Your task to perform on an android device: Add "alienware aurora" to the cart on newegg Image 0: 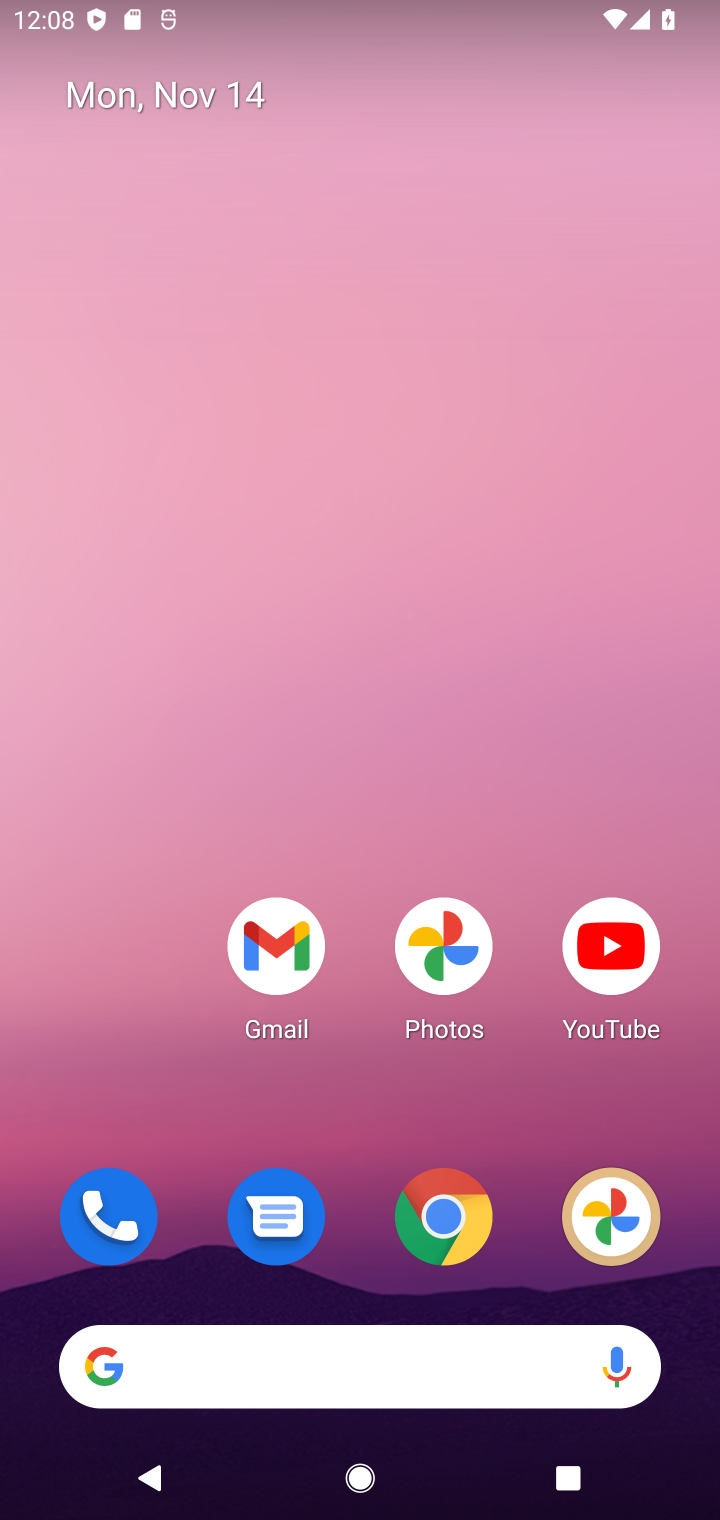
Step 0: click (442, 1203)
Your task to perform on an android device: Add "alienware aurora" to the cart on newegg Image 1: 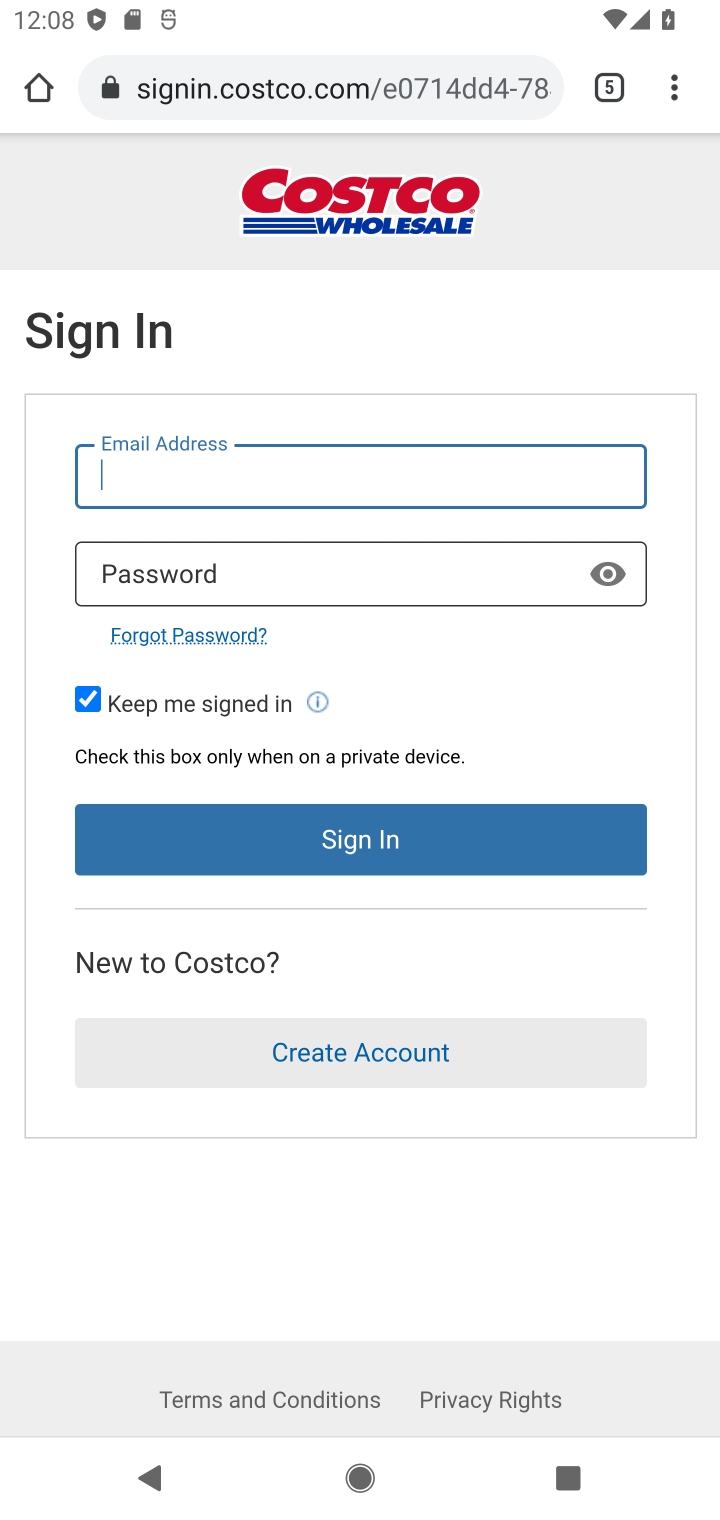
Step 1: click (606, 78)
Your task to perform on an android device: Add "alienware aurora" to the cart on newegg Image 2: 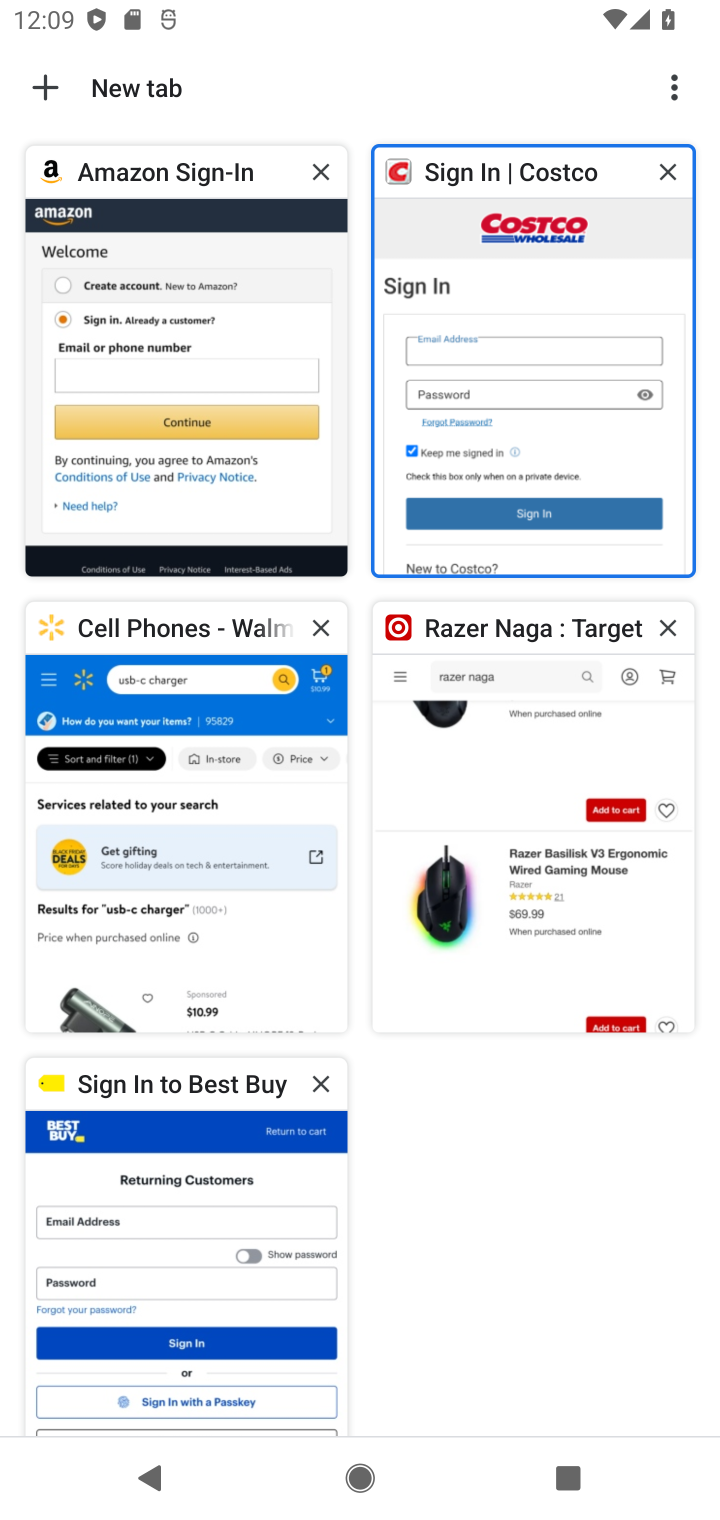
Step 2: click (550, 772)
Your task to perform on an android device: Add "alienware aurora" to the cart on newegg Image 3: 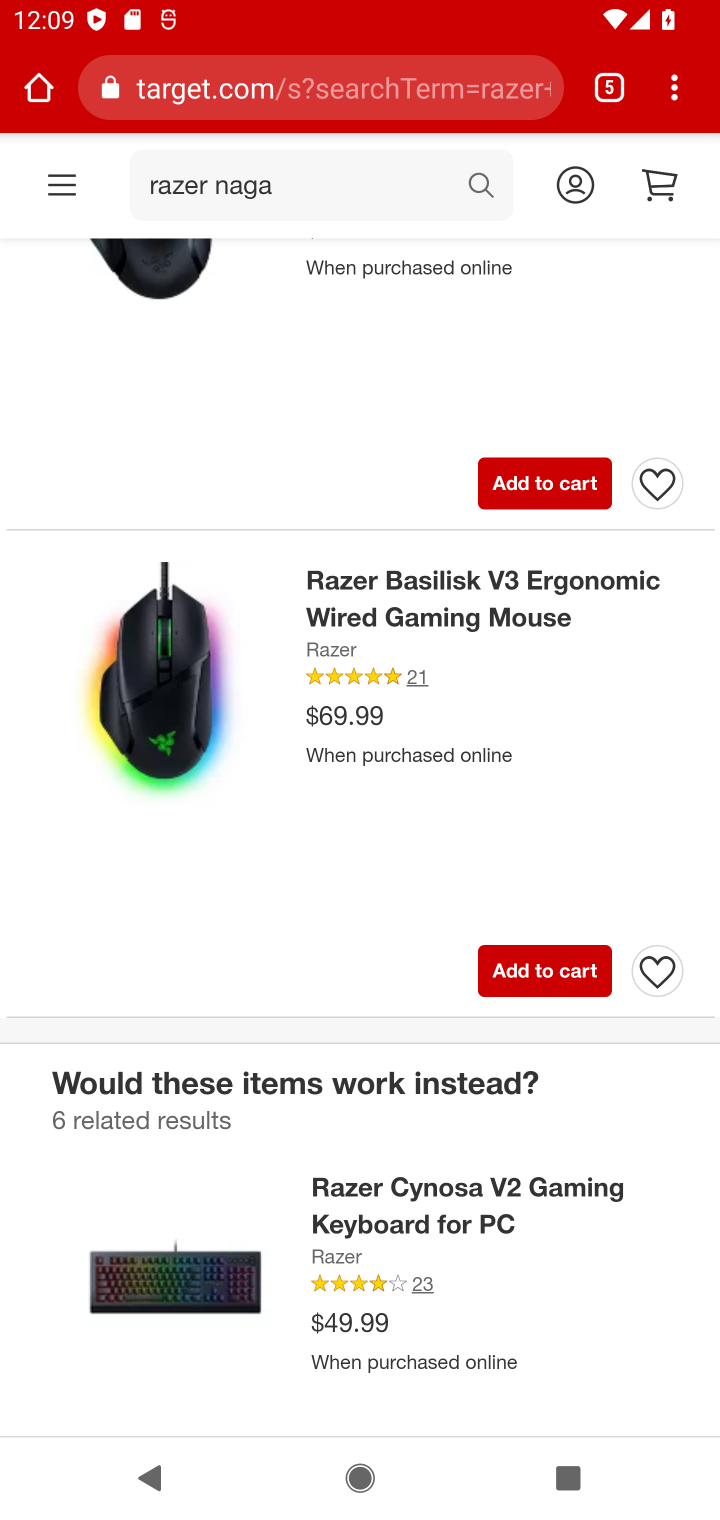
Step 3: click (304, 172)
Your task to perform on an android device: Add "alienware aurora" to the cart on newegg Image 4: 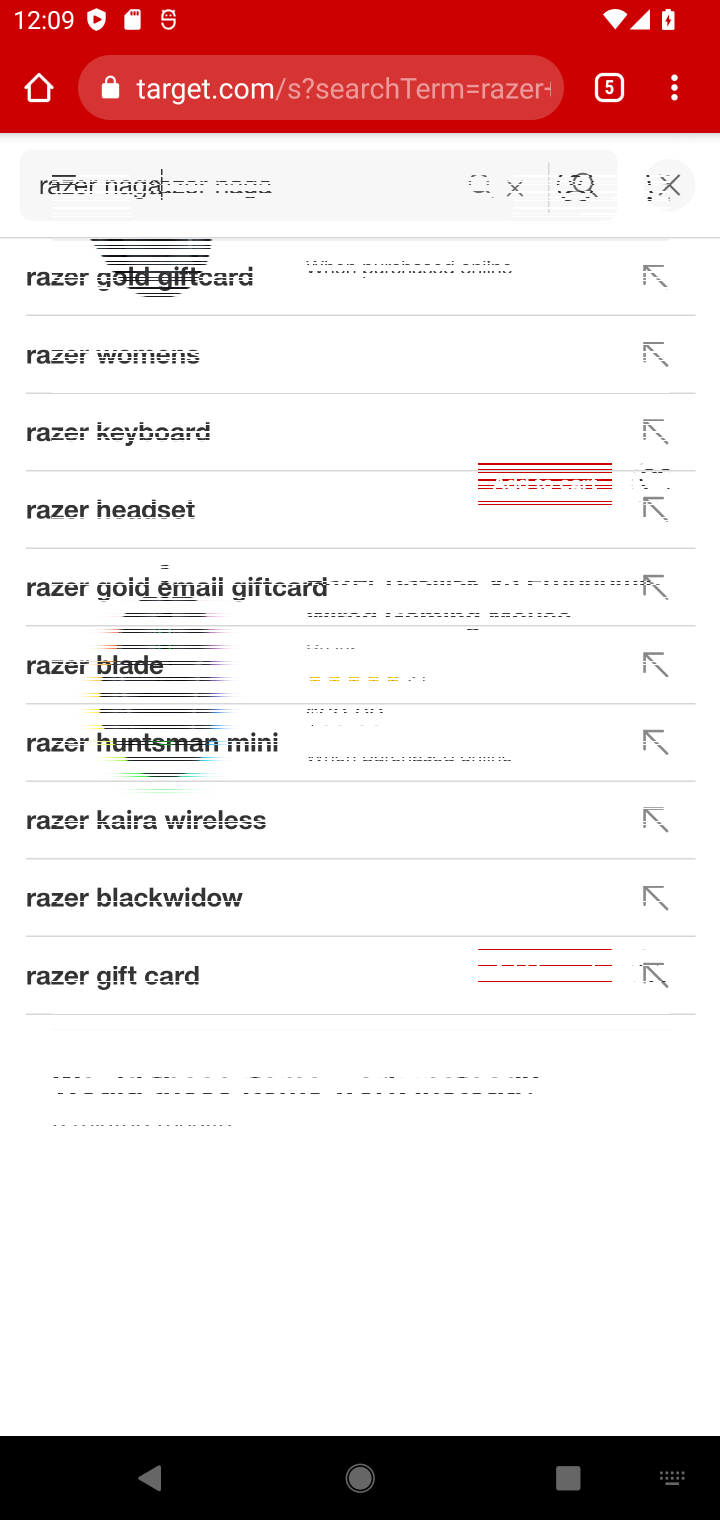
Step 4: click (518, 192)
Your task to perform on an android device: Add "alienware aurora" to the cart on newegg Image 5: 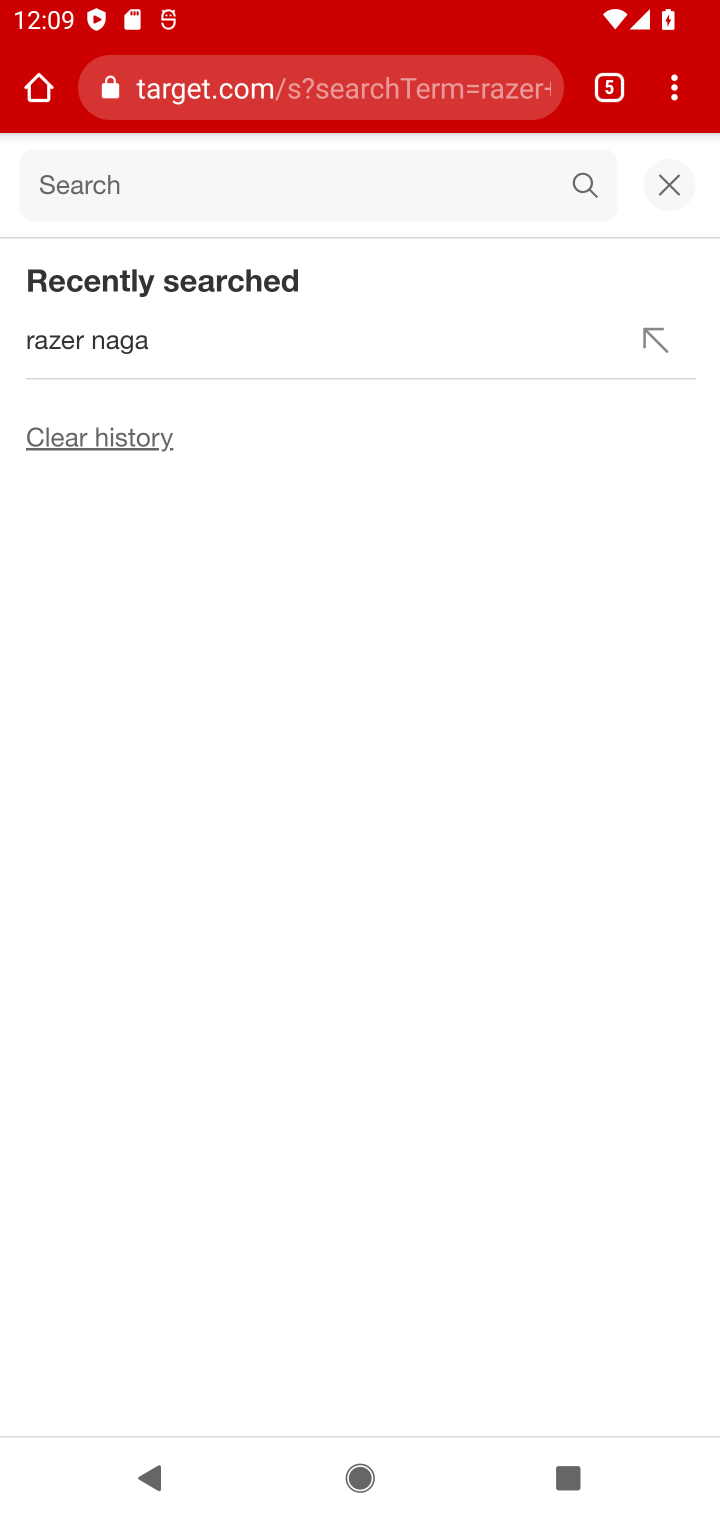
Step 5: click (118, 193)
Your task to perform on an android device: Add "alienware aurora" to the cart on newegg Image 6: 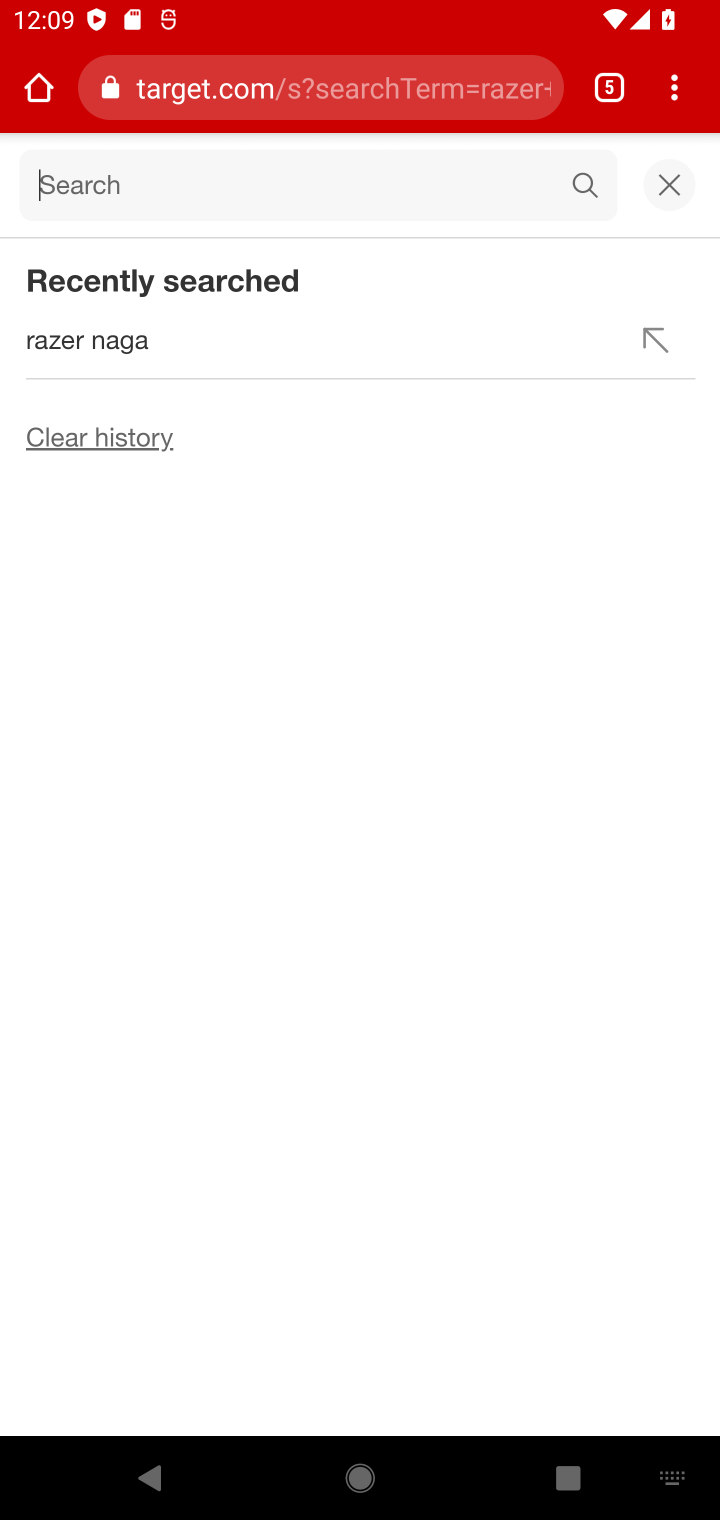
Step 6: type "alienware aurora"
Your task to perform on an android device: Add "alienware aurora" to the cart on newegg Image 7: 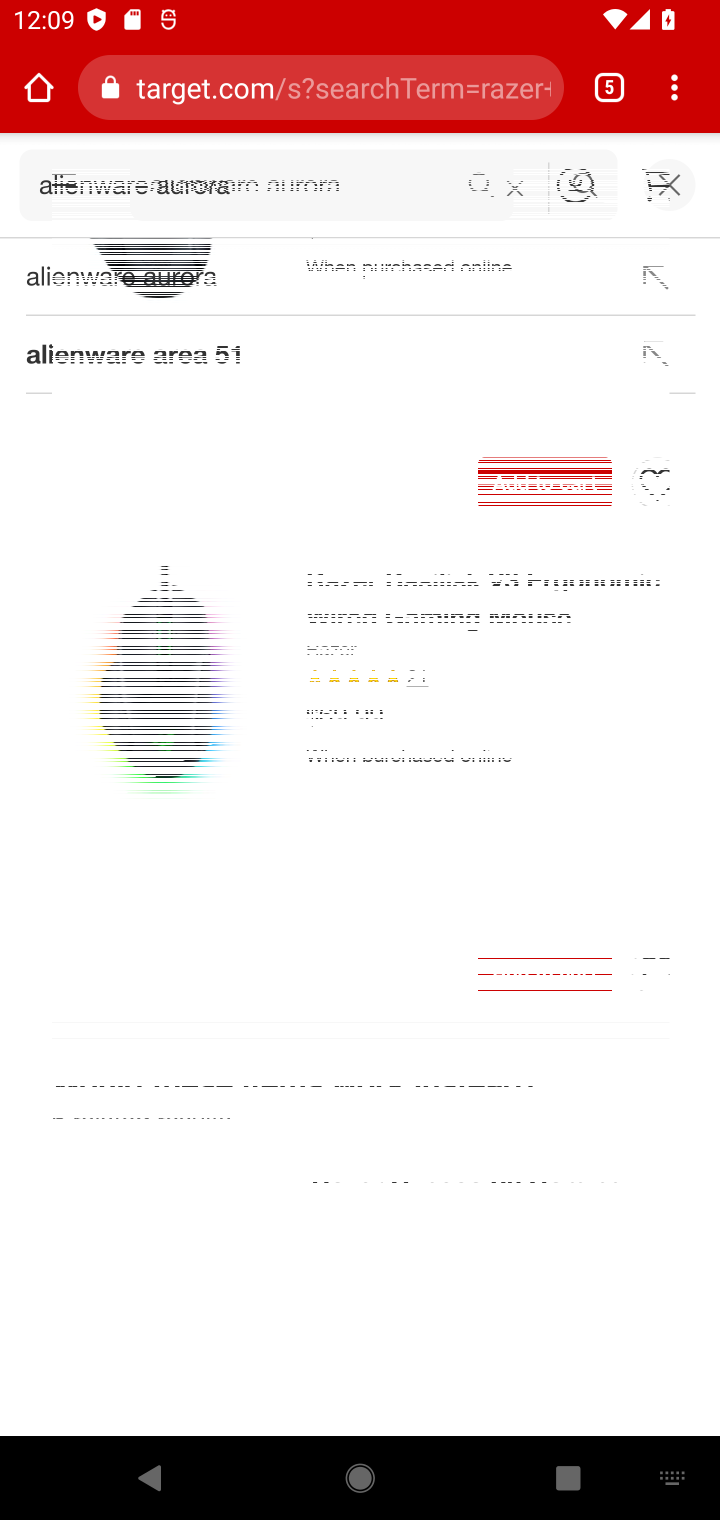
Step 7: click (210, 288)
Your task to perform on an android device: Add "alienware aurora" to the cart on newegg Image 8: 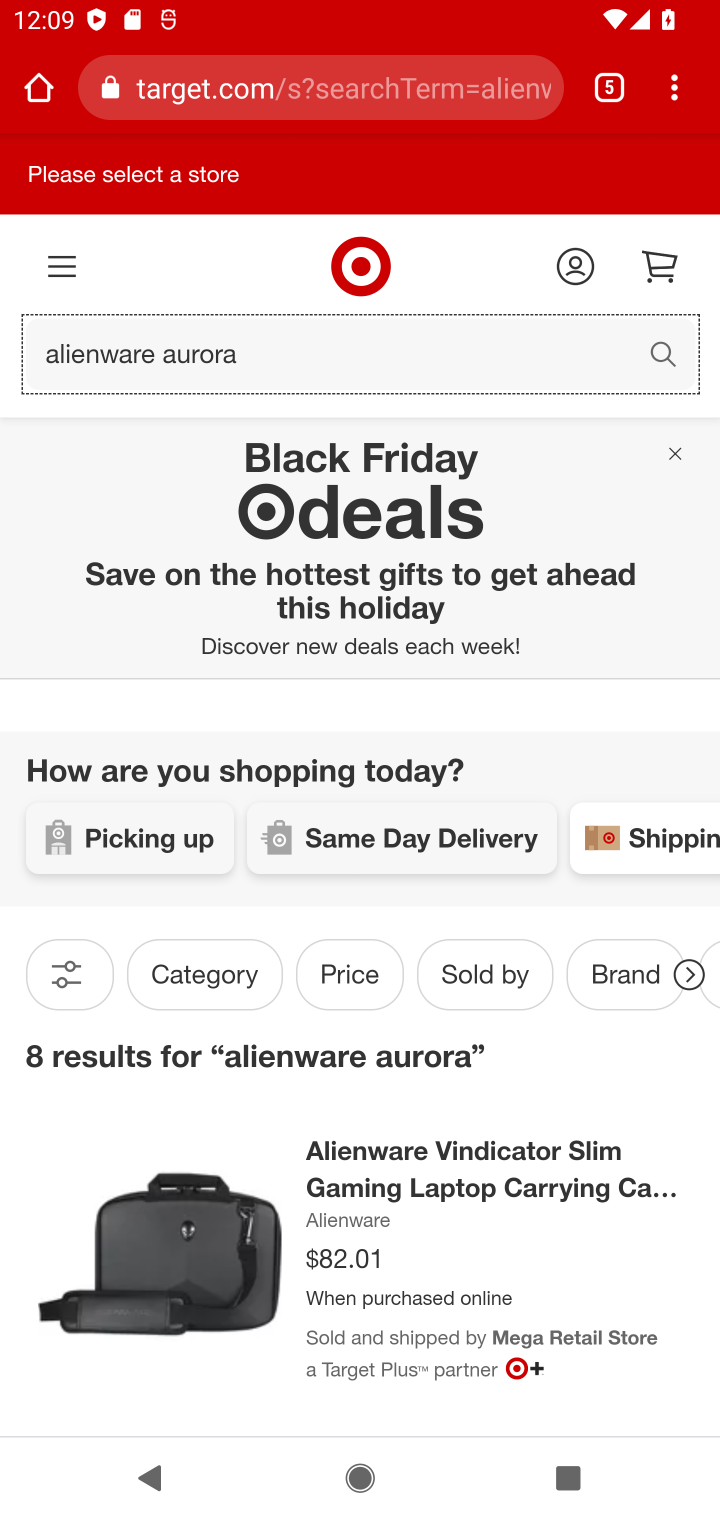
Step 8: drag from (423, 1083) to (548, 184)
Your task to perform on an android device: Add "alienware aurora" to the cart on newegg Image 9: 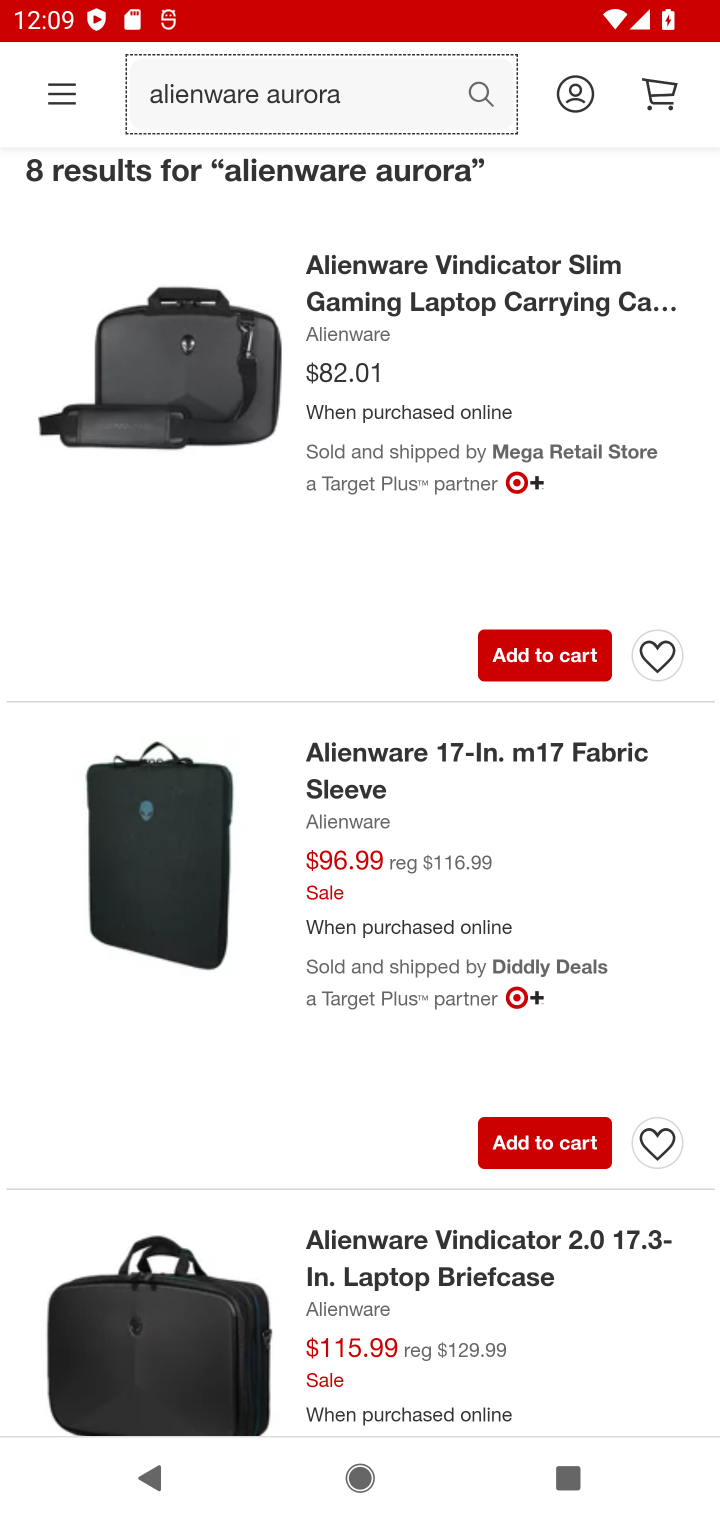
Step 9: click (538, 661)
Your task to perform on an android device: Add "alienware aurora" to the cart on newegg Image 10: 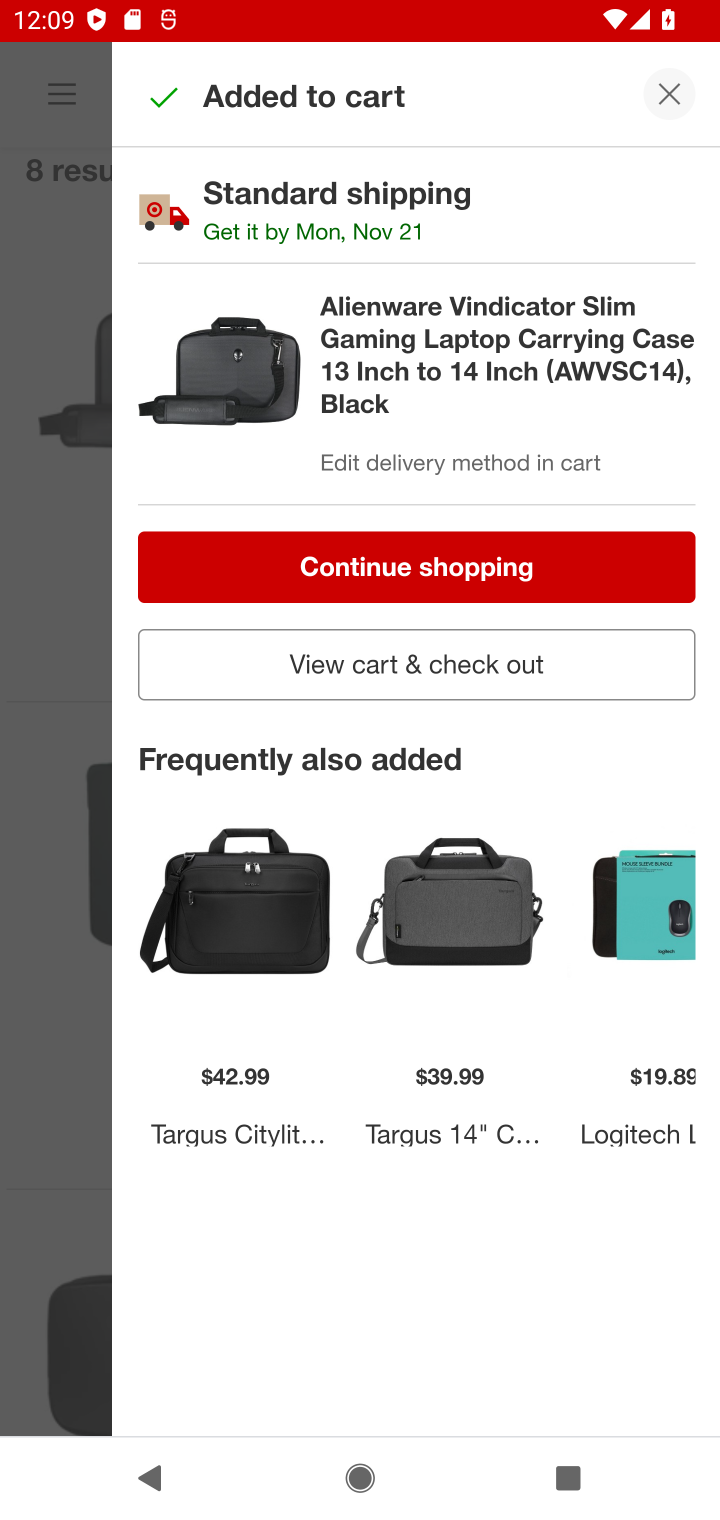
Step 10: task complete